Your task to perform on an android device: open app "Roku - Official Remote Control" (install if not already installed) Image 0: 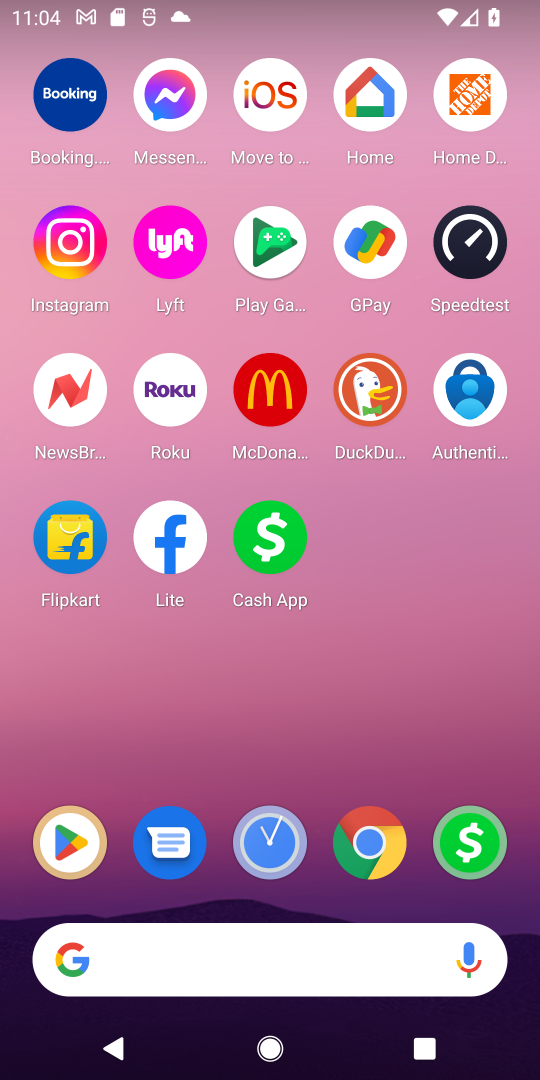
Step 0: click (60, 852)
Your task to perform on an android device: open app "Roku - Official Remote Control" (install if not already installed) Image 1: 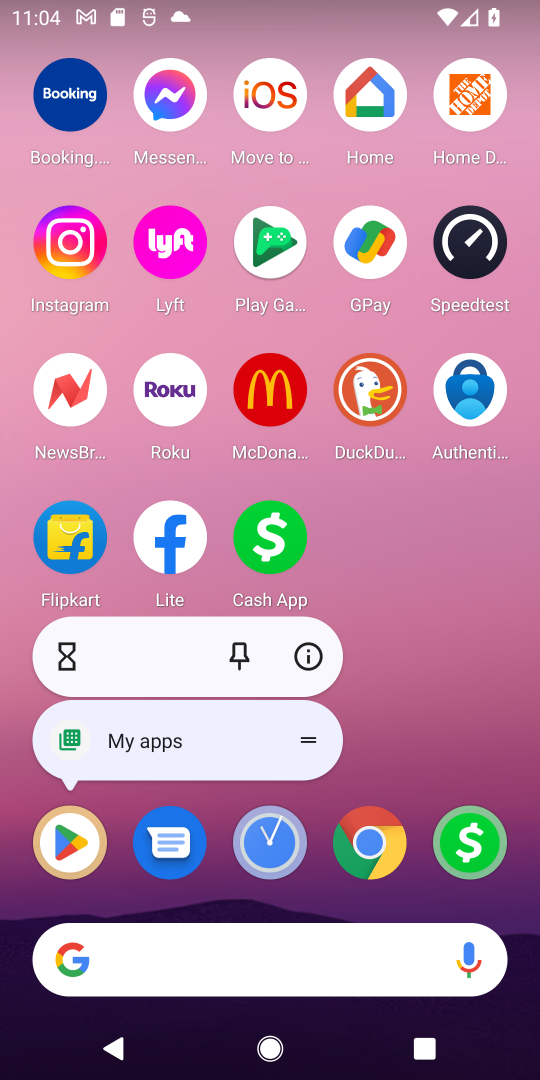
Step 1: click (60, 835)
Your task to perform on an android device: open app "Roku - Official Remote Control" (install if not already installed) Image 2: 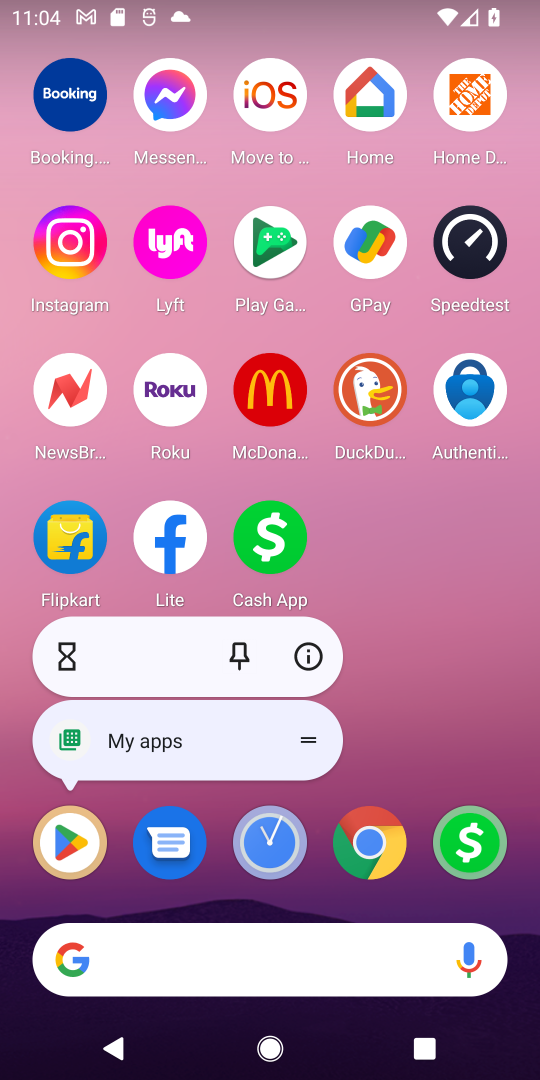
Step 2: click (66, 850)
Your task to perform on an android device: open app "Roku - Official Remote Control" (install if not already installed) Image 3: 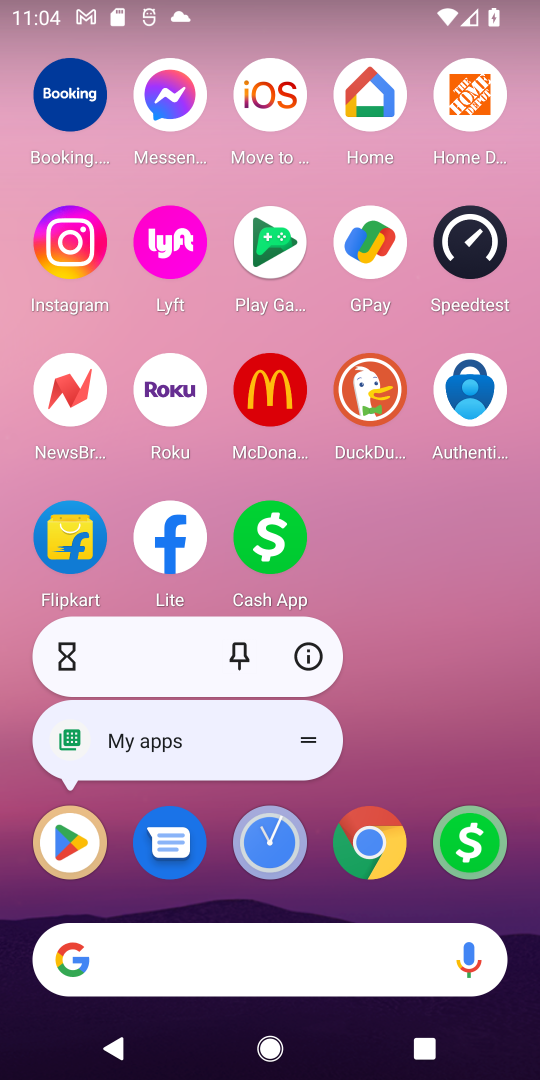
Step 3: click (71, 850)
Your task to perform on an android device: open app "Roku - Official Remote Control" (install if not already installed) Image 4: 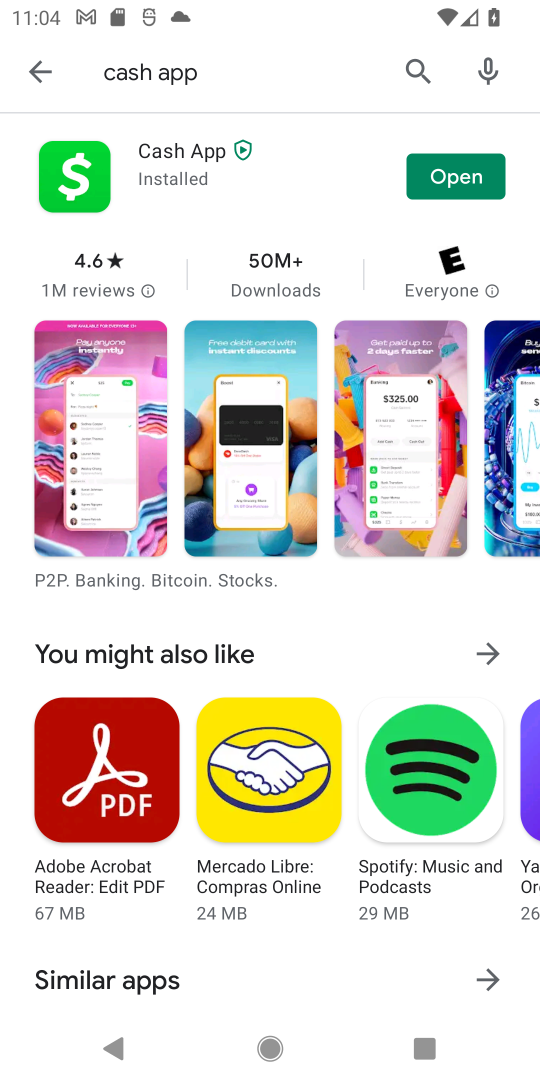
Step 4: click (406, 78)
Your task to perform on an android device: open app "Roku - Official Remote Control" (install if not already installed) Image 5: 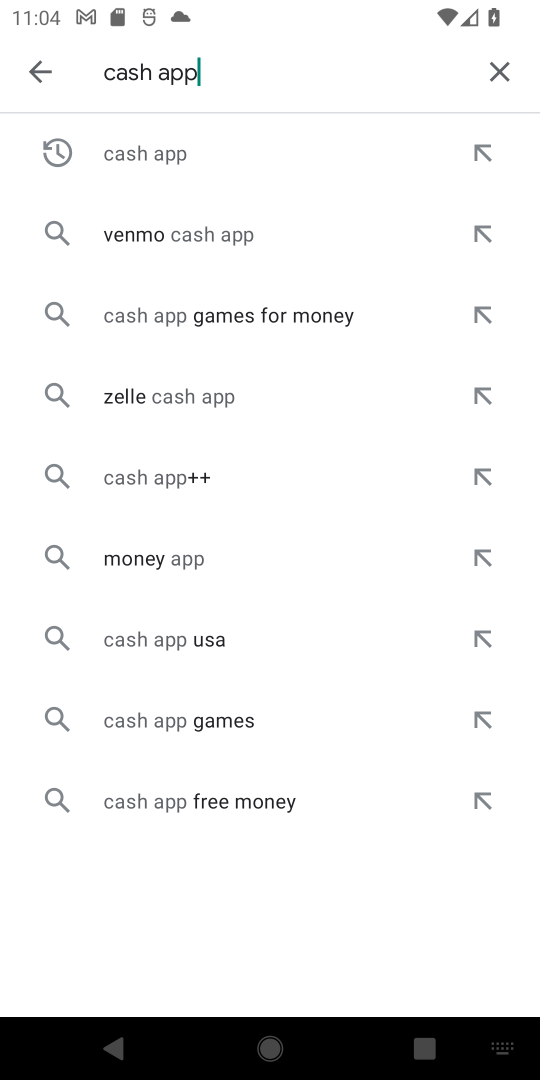
Step 5: click (501, 68)
Your task to perform on an android device: open app "Roku - Official Remote Control" (install if not already installed) Image 6: 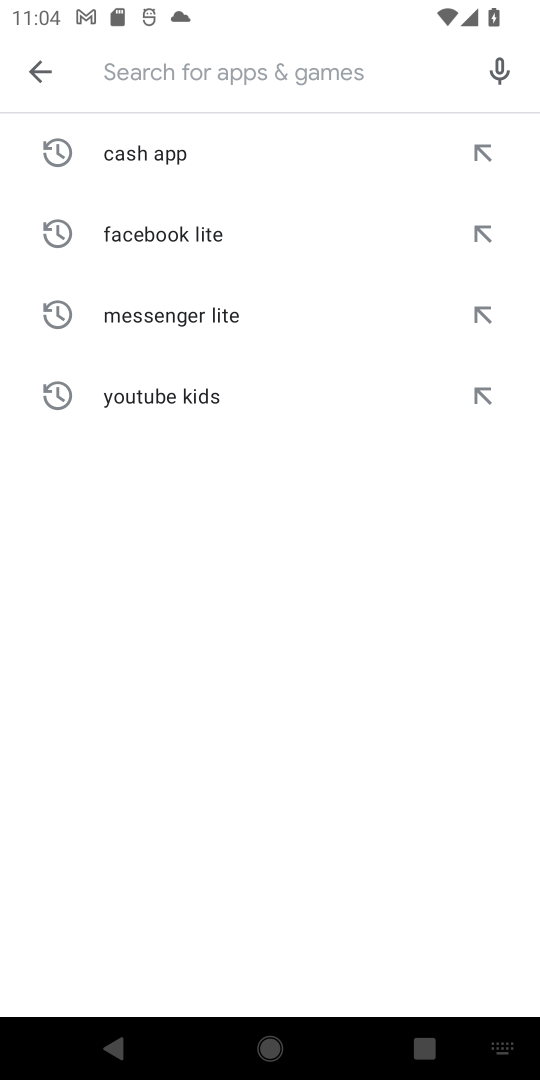
Step 6: click (231, 65)
Your task to perform on an android device: open app "Roku - Official Remote Control" (install if not already installed) Image 7: 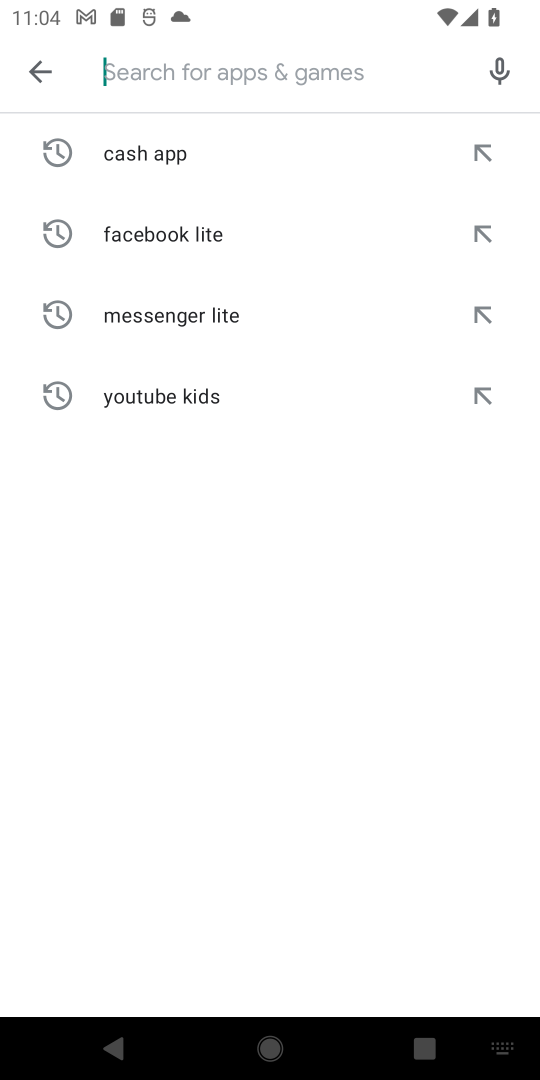
Step 7: type "Roku - Official Remote Contro"
Your task to perform on an android device: open app "Roku - Official Remote Control" (install if not already installed) Image 8: 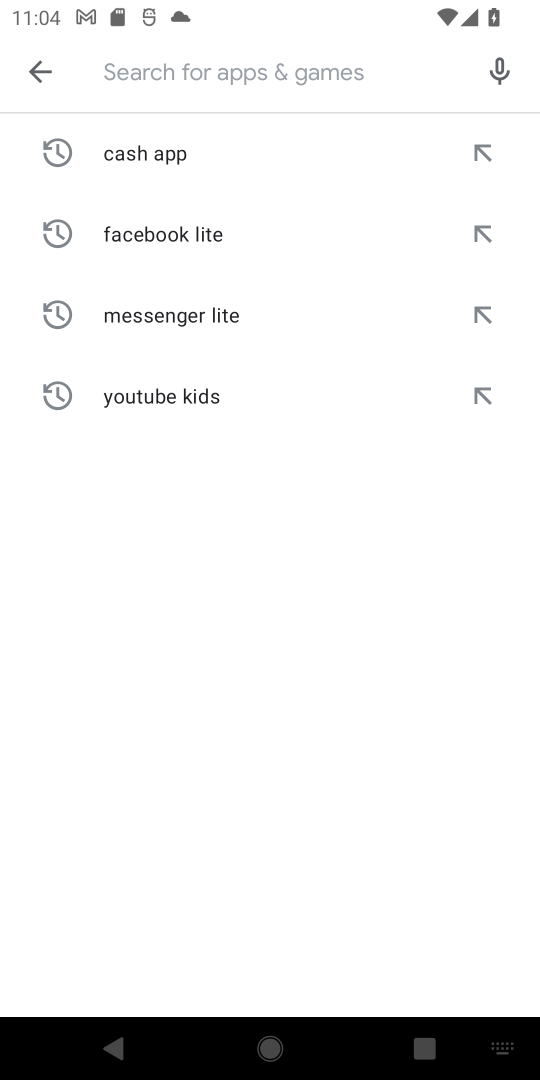
Step 8: click (230, 631)
Your task to perform on an android device: open app "Roku - Official Remote Control" (install if not already installed) Image 9: 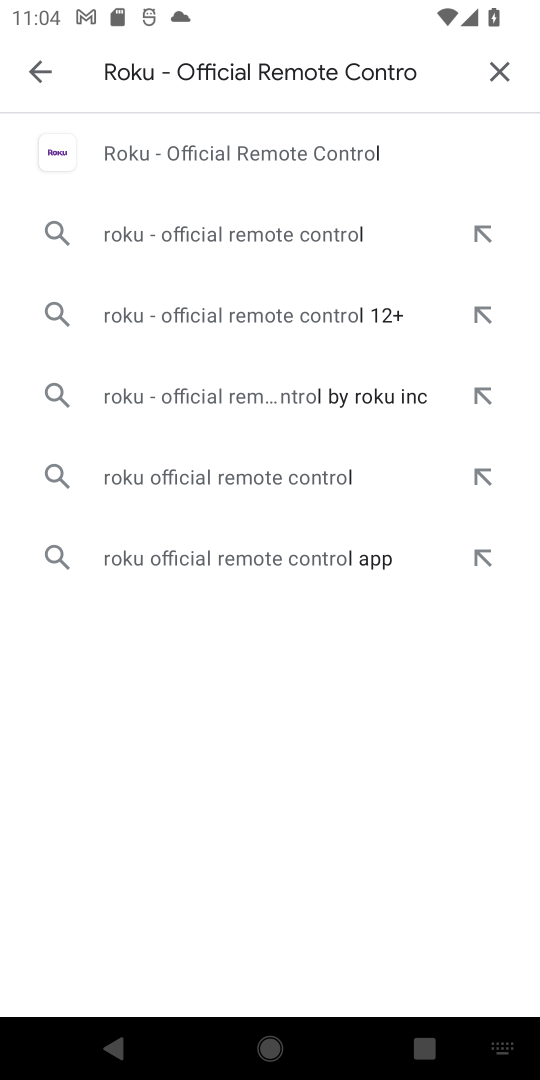
Step 9: click (213, 152)
Your task to perform on an android device: open app "Roku - Official Remote Control" (install if not already installed) Image 10: 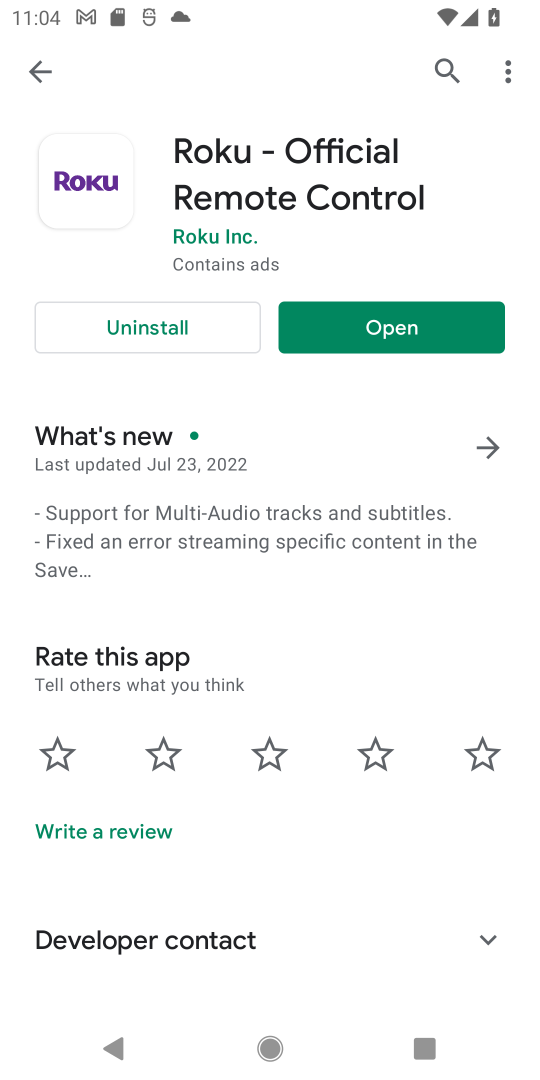
Step 10: click (352, 342)
Your task to perform on an android device: open app "Roku - Official Remote Control" (install if not already installed) Image 11: 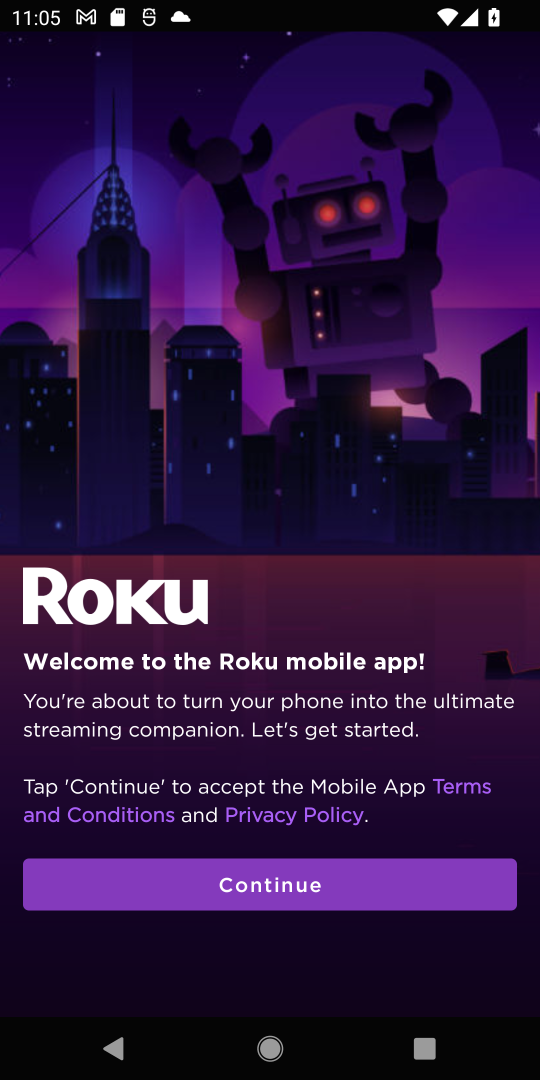
Step 11: task complete